Your task to perform on an android device: allow notifications from all sites in the chrome app Image 0: 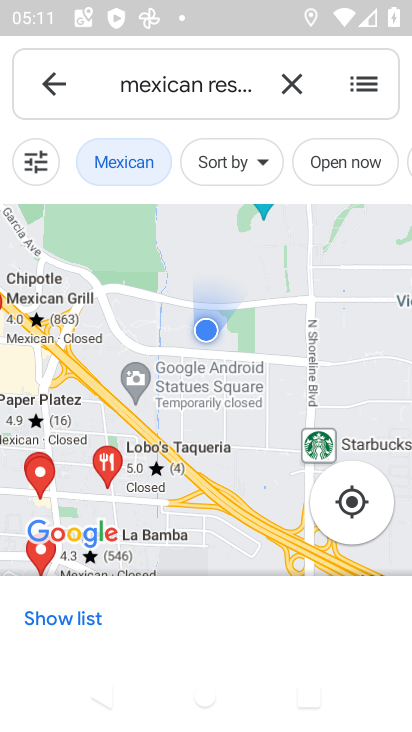
Step 0: press home button
Your task to perform on an android device: allow notifications from all sites in the chrome app Image 1: 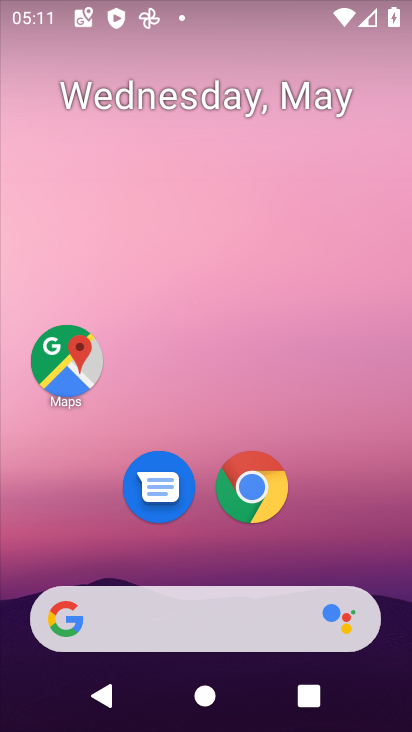
Step 1: click (248, 518)
Your task to perform on an android device: allow notifications from all sites in the chrome app Image 2: 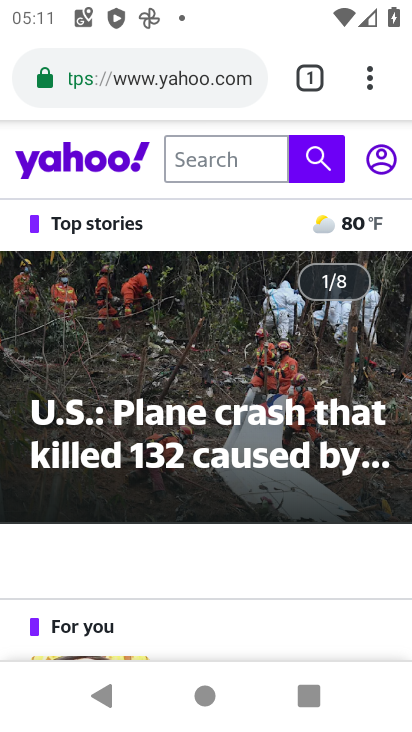
Step 2: click (368, 92)
Your task to perform on an android device: allow notifications from all sites in the chrome app Image 3: 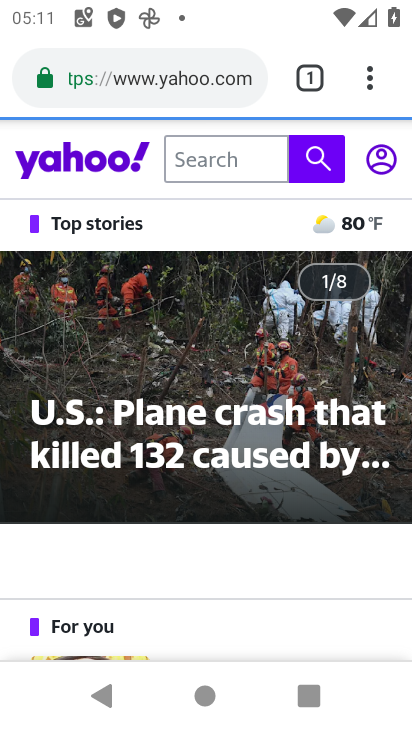
Step 3: click (374, 75)
Your task to perform on an android device: allow notifications from all sites in the chrome app Image 4: 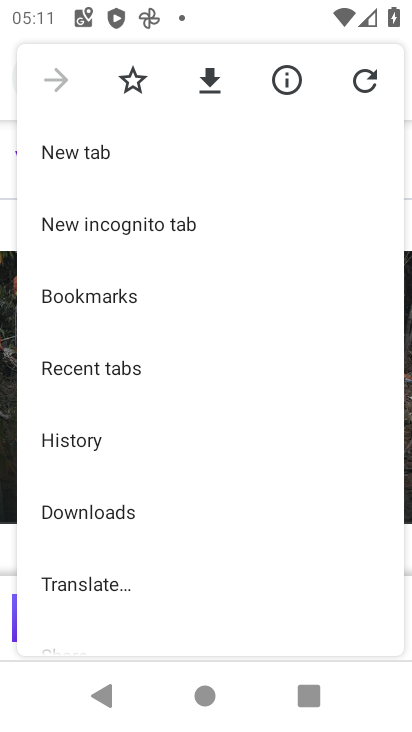
Step 4: drag from (161, 539) to (115, 228)
Your task to perform on an android device: allow notifications from all sites in the chrome app Image 5: 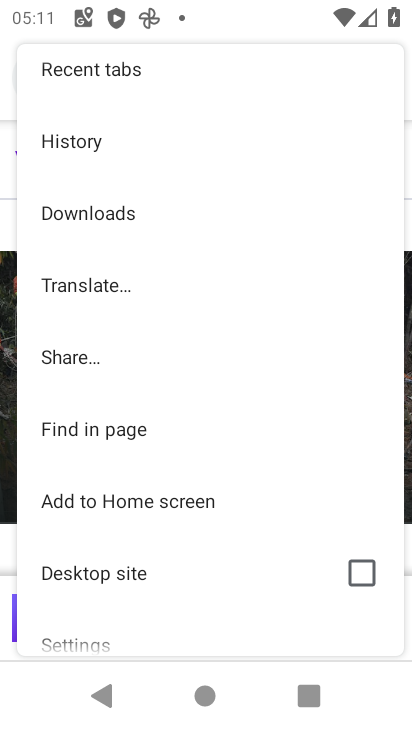
Step 5: click (117, 627)
Your task to perform on an android device: allow notifications from all sites in the chrome app Image 6: 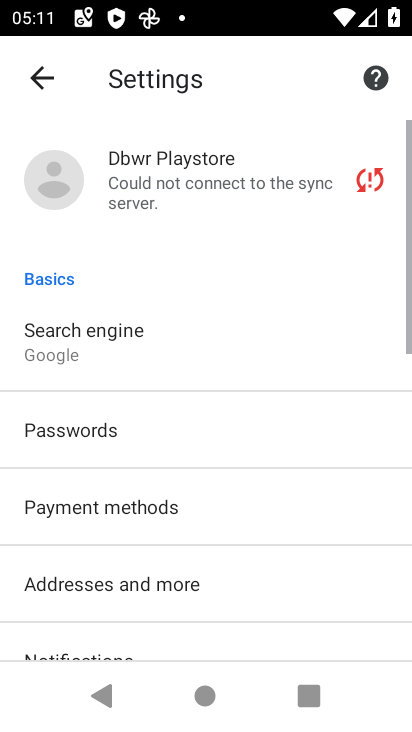
Step 6: drag from (165, 494) to (204, 284)
Your task to perform on an android device: allow notifications from all sites in the chrome app Image 7: 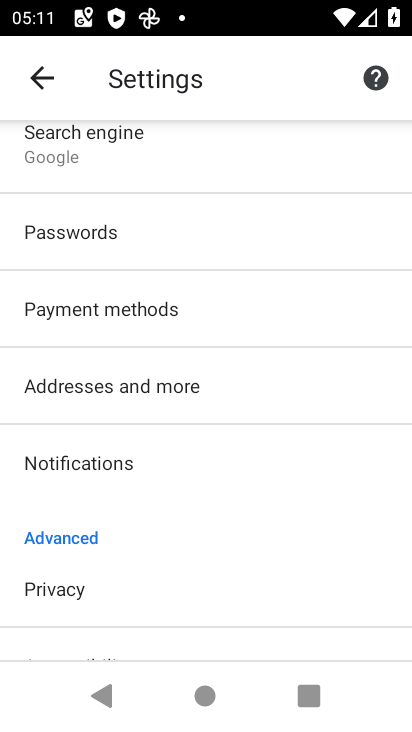
Step 7: click (183, 466)
Your task to perform on an android device: allow notifications from all sites in the chrome app Image 8: 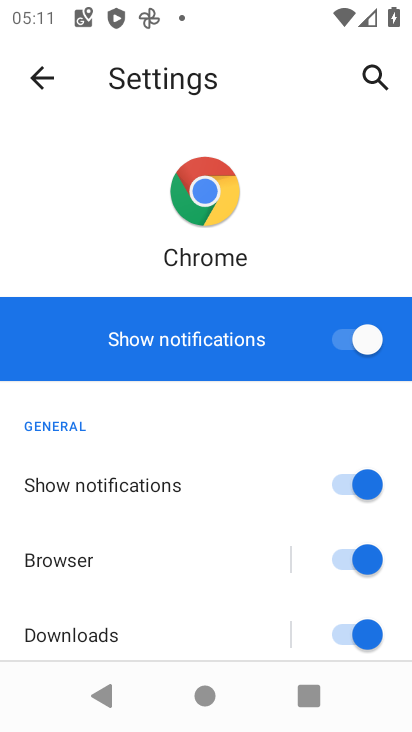
Step 8: click (303, 347)
Your task to perform on an android device: allow notifications from all sites in the chrome app Image 9: 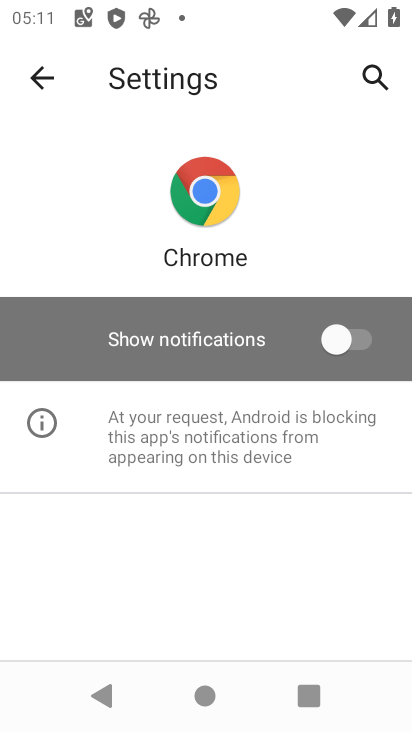
Step 9: task complete